Your task to perform on an android device: Open the map Image 0: 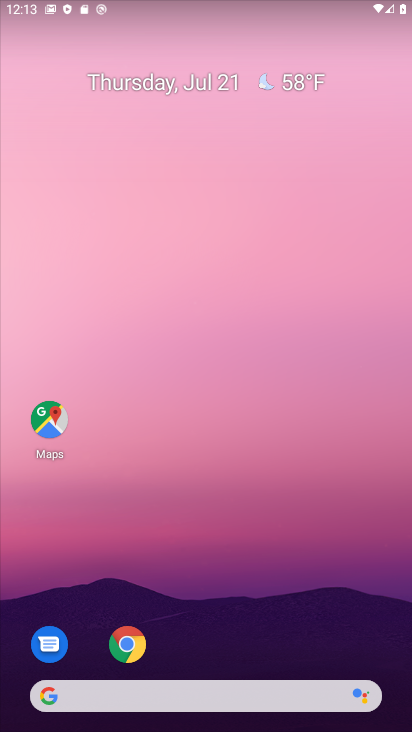
Step 0: click (45, 420)
Your task to perform on an android device: Open the map Image 1: 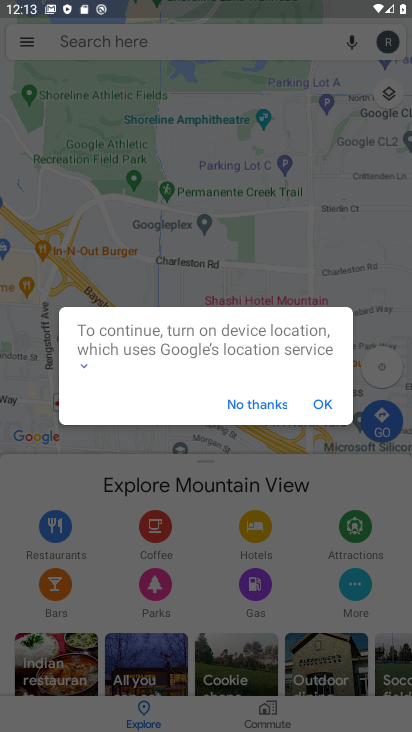
Step 1: click (333, 404)
Your task to perform on an android device: Open the map Image 2: 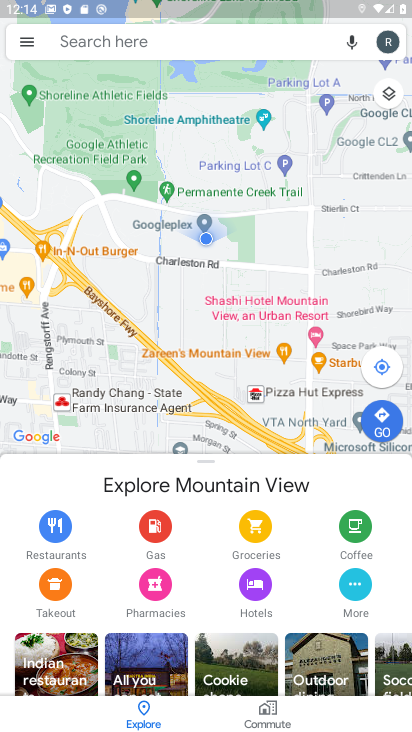
Step 2: task complete